Your task to perform on an android device: turn on translation in the chrome app Image 0: 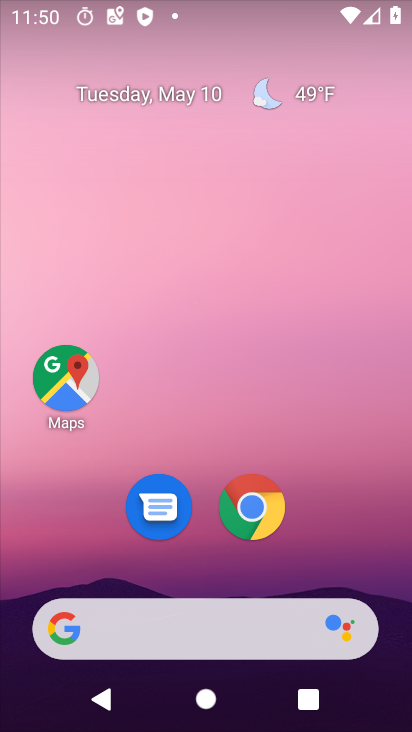
Step 0: click (246, 504)
Your task to perform on an android device: turn on translation in the chrome app Image 1: 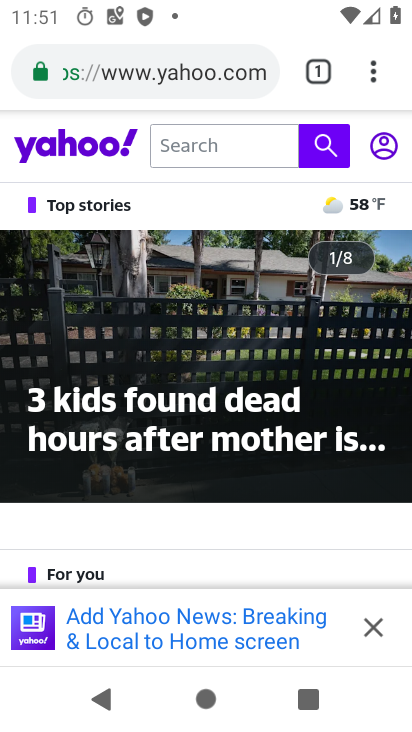
Step 1: click (367, 67)
Your task to perform on an android device: turn on translation in the chrome app Image 2: 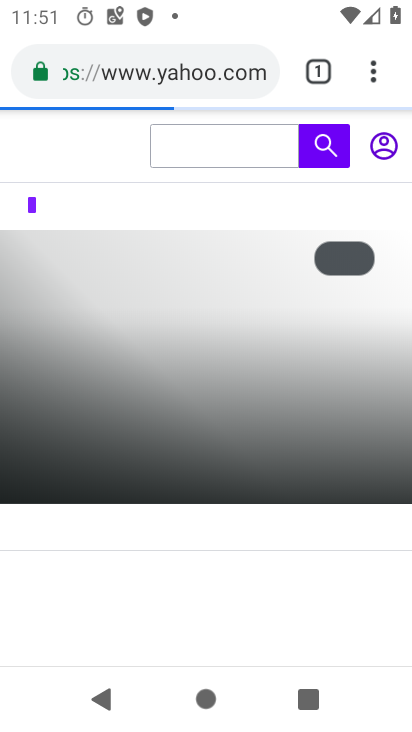
Step 2: click (362, 68)
Your task to perform on an android device: turn on translation in the chrome app Image 3: 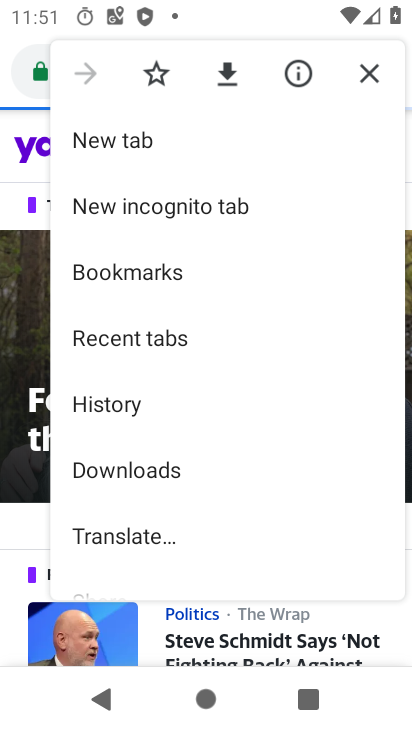
Step 3: drag from (211, 489) to (239, 150)
Your task to perform on an android device: turn on translation in the chrome app Image 4: 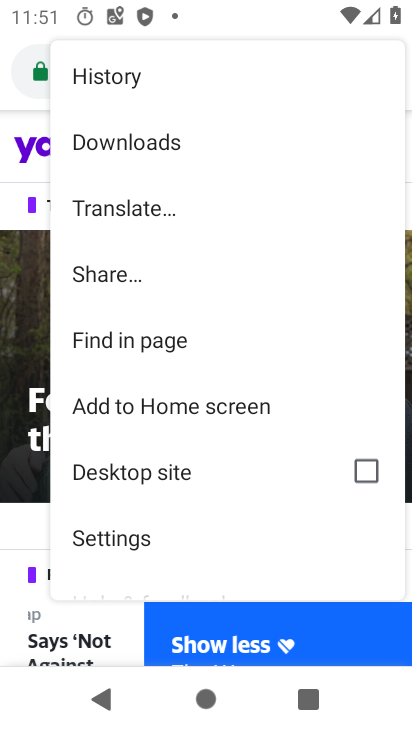
Step 4: click (147, 530)
Your task to perform on an android device: turn on translation in the chrome app Image 5: 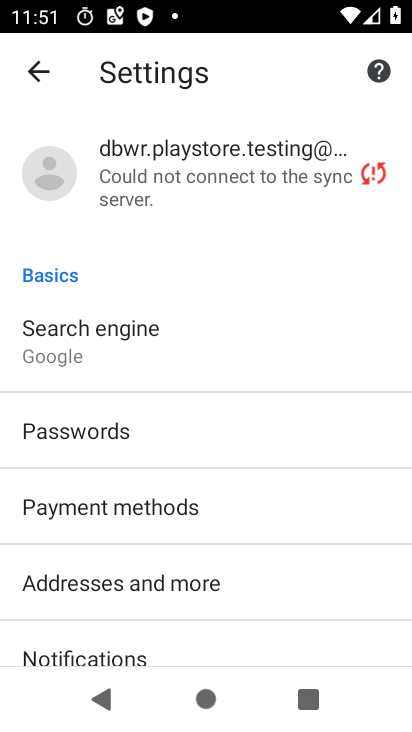
Step 5: drag from (225, 579) to (242, 135)
Your task to perform on an android device: turn on translation in the chrome app Image 6: 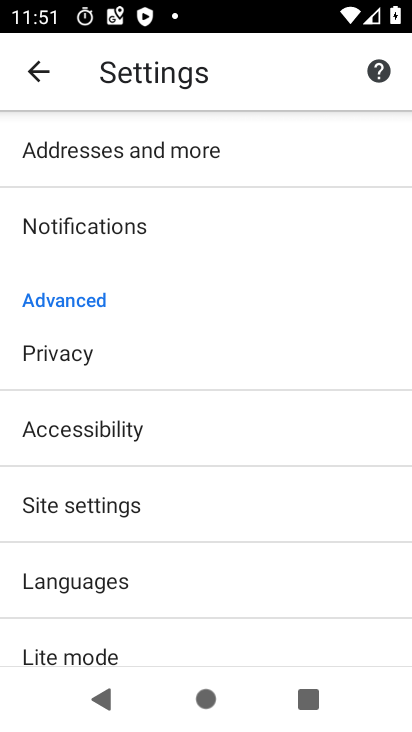
Step 6: click (105, 577)
Your task to perform on an android device: turn on translation in the chrome app Image 7: 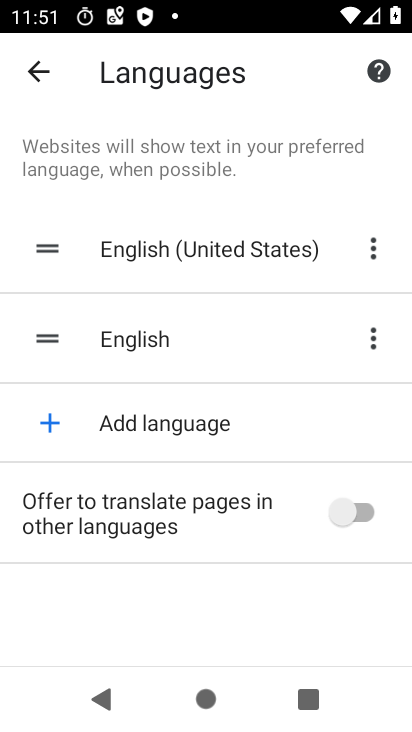
Step 7: click (343, 520)
Your task to perform on an android device: turn on translation in the chrome app Image 8: 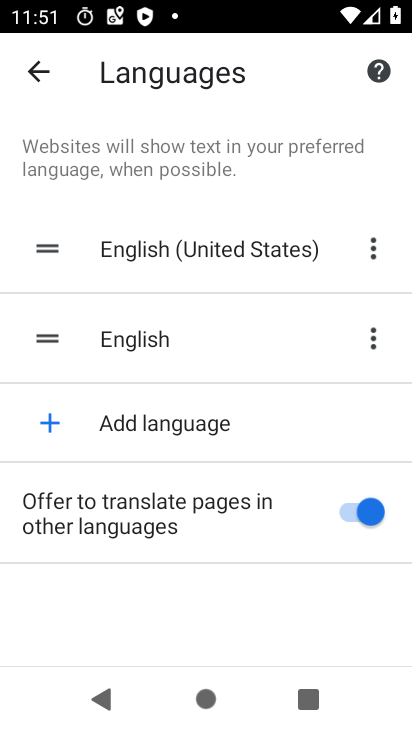
Step 8: task complete